Your task to perform on an android device: Open privacy settings Image 0: 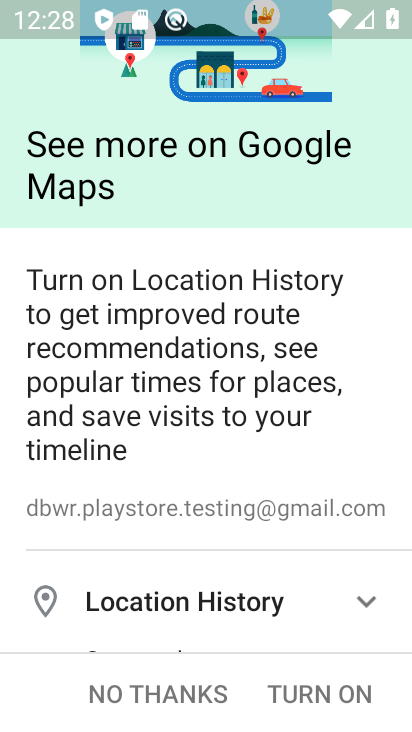
Step 0: press home button
Your task to perform on an android device: Open privacy settings Image 1: 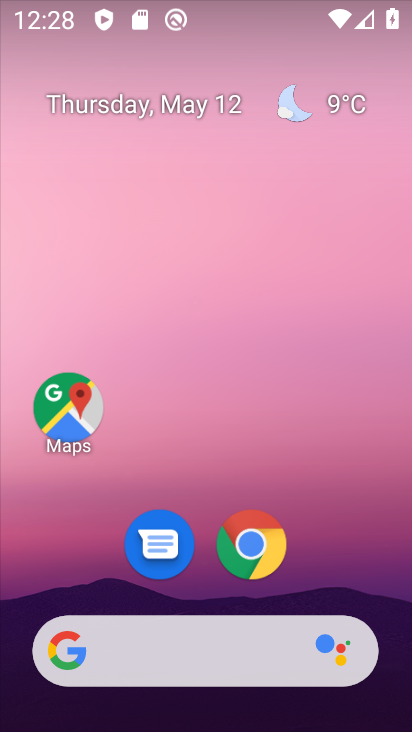
Step 1: drag from (191, 728) to (165, 112)
Your task to perform on an android device: Open privacy settings Image 2: 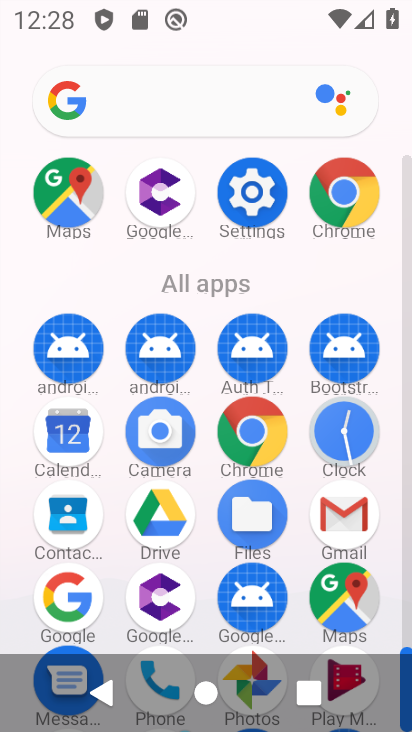
Step 2: click (252, 186)
Your task to perform on an android device: Open privacy settings Image 3: 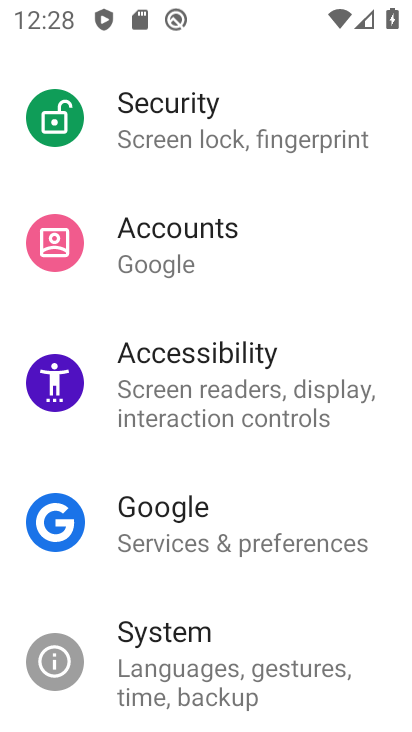
Step 3: drag from (264, 185) to (236, 606)
Your task to perform on an android device: Open privacy settings Image 4: 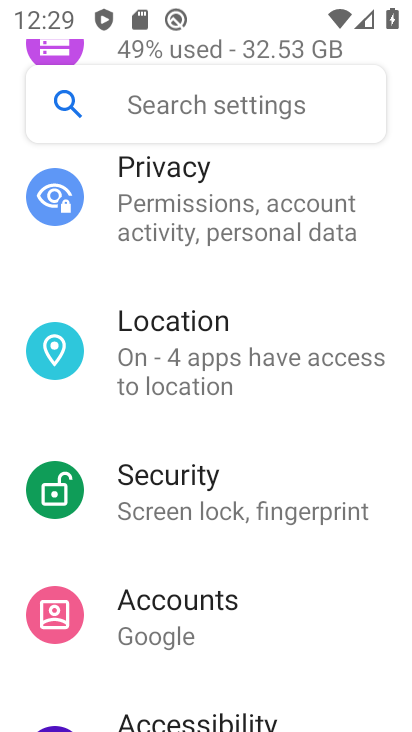
Step 4: click (185, 186)
Your task to perform on an android device: Open privacy settings Image 5: 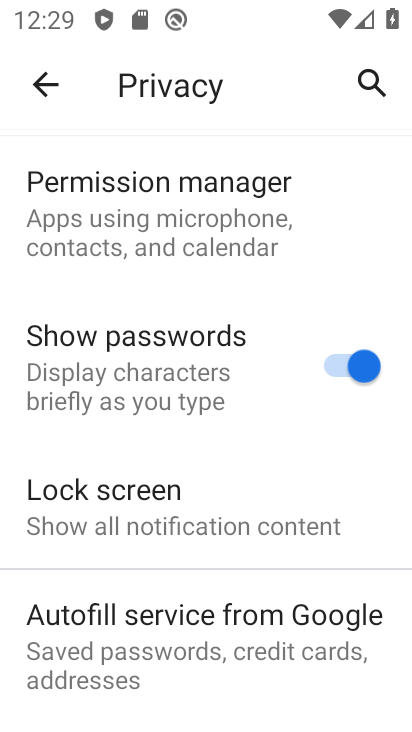
Step 5: task complete